Your task to perform on an android device: open chrome and create a bookmark for the current page Image 0: 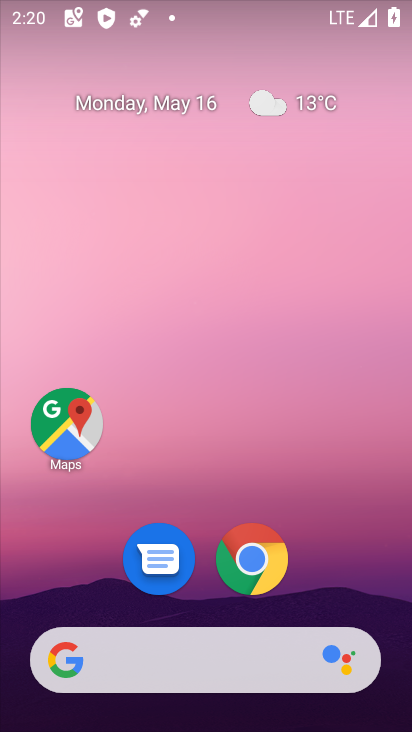
Step 0: click (242, 571)
Your task to perform on an android device: open chrome and create a bookmark for the current page Image 1: 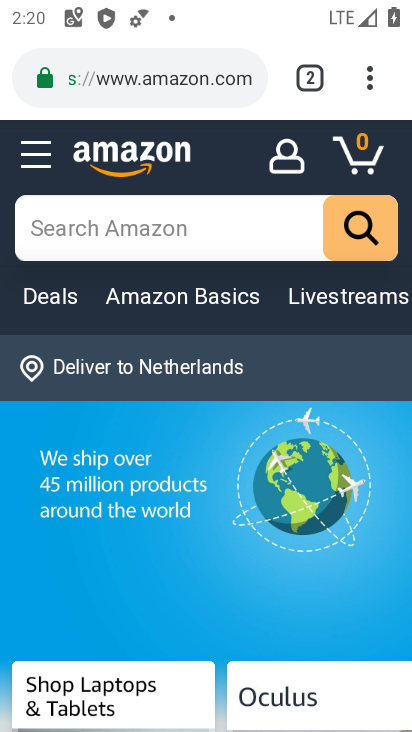
Step 1: task complete